Your task to perform on an android device: read, delete, or share a saved page in the chrome app Image 0: 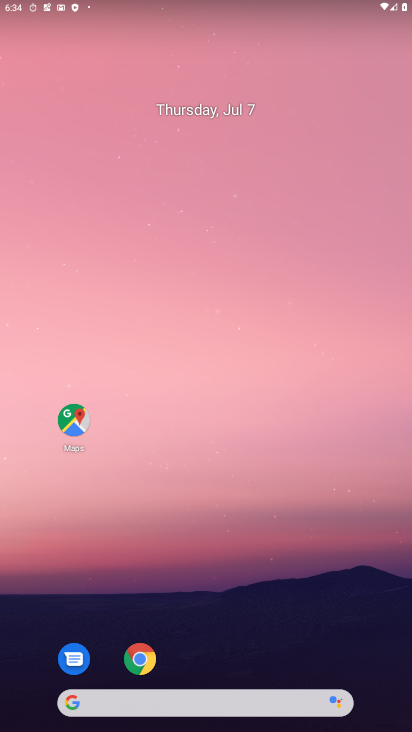
Step 0: drag from (379, 691) to (295, 62)
Your task to perform on an android device: read, delete, or share a saved page in the chrome app Image 1: 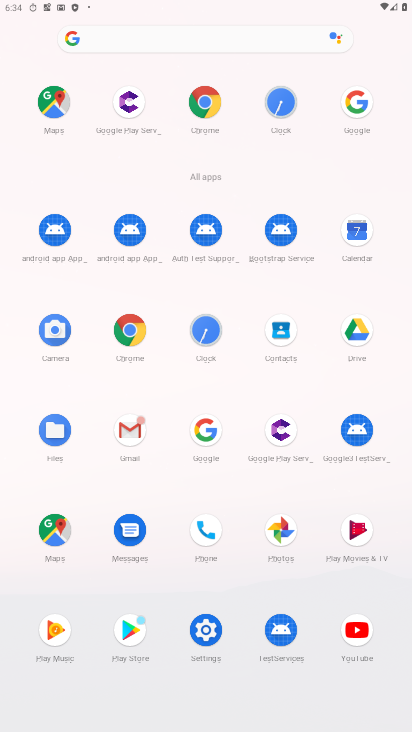
Step 1: click (199, 97)
Your task to perform on an android device: read, delete, or share a saved page in the chrome app Image 2: 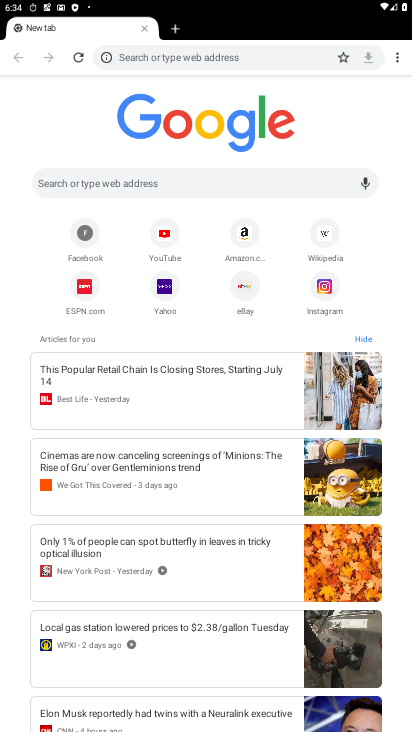
Step 2: task complete